Your task to perform on an android device: remove spam from my inbox in the gmail app Image 0: 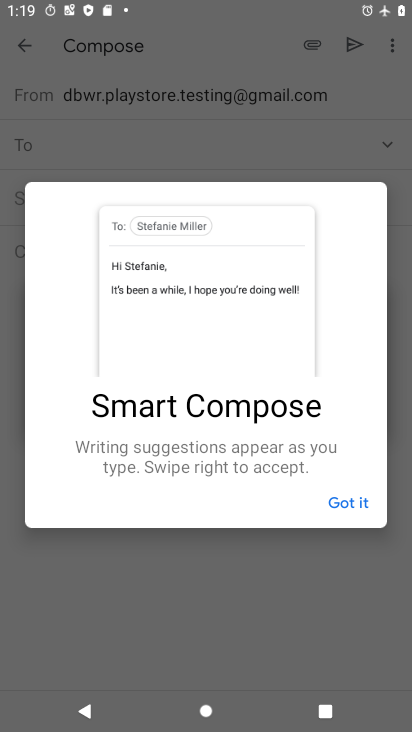
Step 0: press home button
Your task to perform on an android device: remove spam from my inbox in the gmail app Image 1: 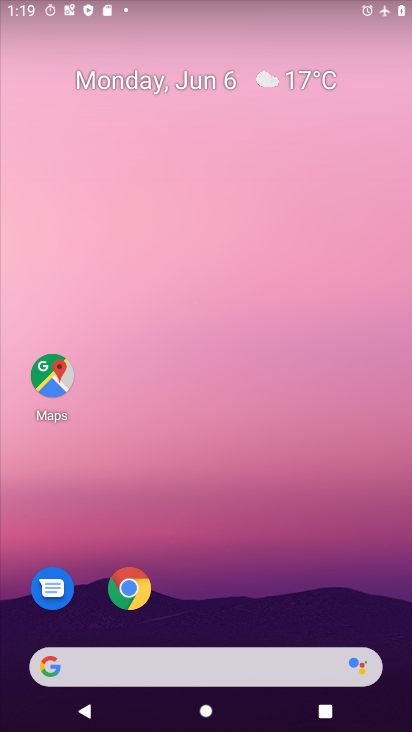
Step 1: drag from (293, 537) to (156, 6)
Your task to perform on an android device: remove spam from my inbox in the gmail app Image 2: 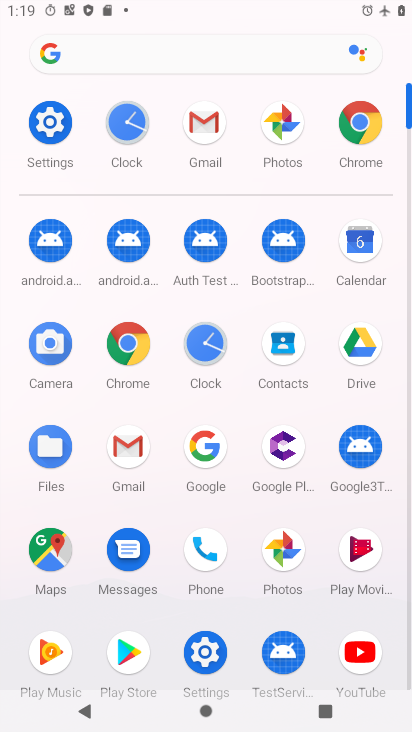
Step 2: click (206, 126)
Your task to perform on an android device: remove spam from my inbox in the gmail app Image 3: 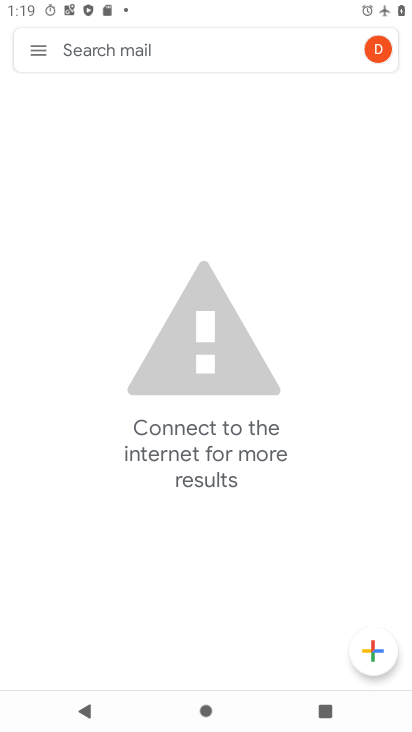
Step 3: click (34, 49)
Your task to perform on an android device: remove spam from my inbox in the gmail app Image 4: 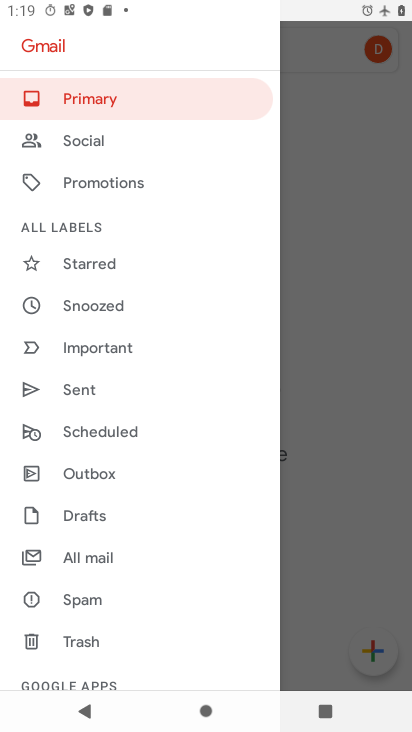
Step 4: click (338, 250)
Your task to perform on an android device: remove spam from my inbox in the gmail app Image 5: 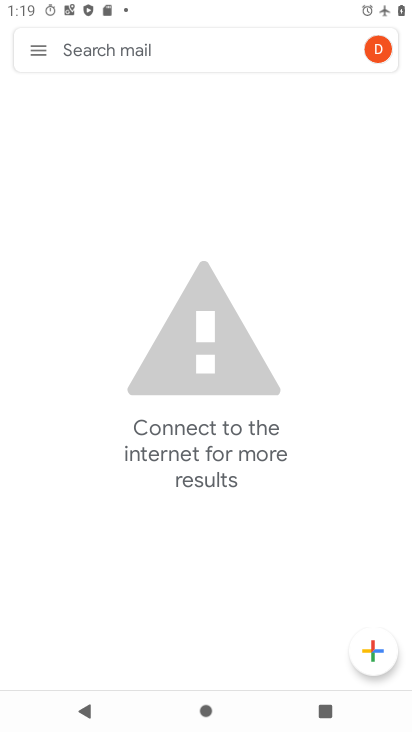
Step 5: task complete